Your task to perform on an android device: turn off notifications settings in the gmail app Image 0: 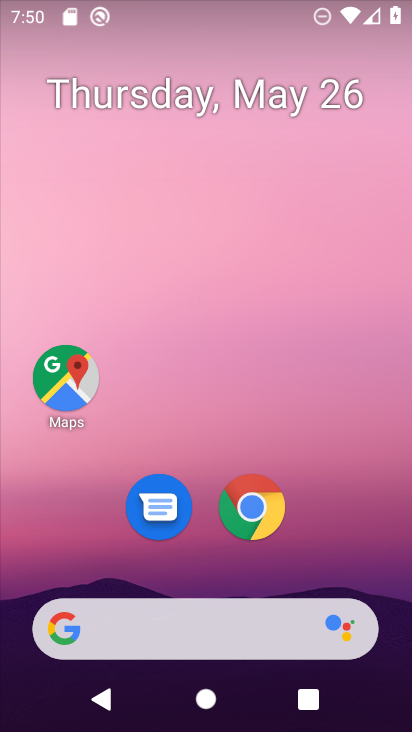
Step 0: drag from (330, 559) to (250, 236)
Your task to perform on an android device: turn off notifications settings in the gmail app Image 1: 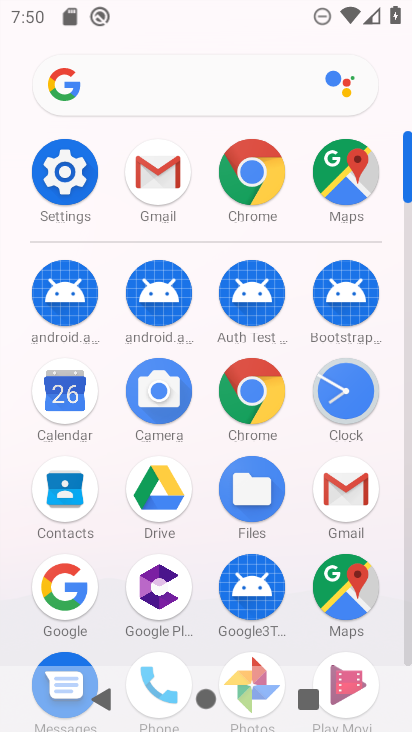
Step 1: click (125, 190)
Your task to perform on an android device: turn off notifications settings in the gmail app Image 2: 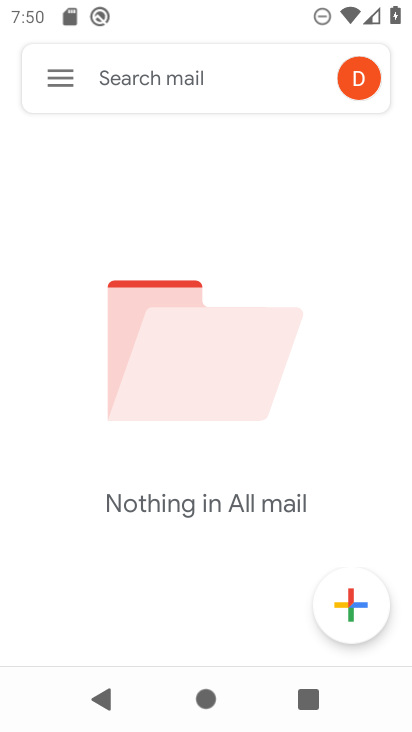
Step 2: click (80, 99)
Your task to perform on an android device: turn off notifications settings in the gmail app Image 3: 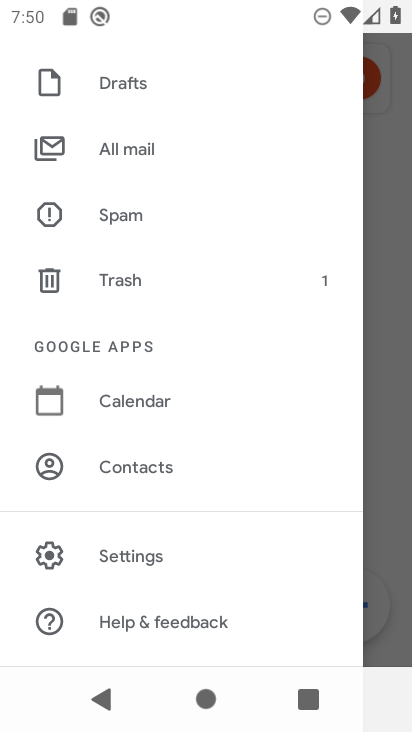
Step 3: click (142, 568)
Your task to perform on an android device: turn off notifications settings in the gmail app Image 4: 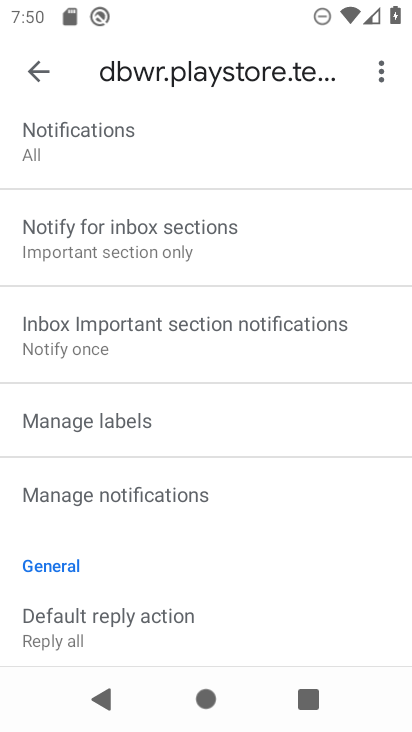
Step 4: click (99, 517)
Your task to perform on an android device: turn off notifications settings in the gmail app Image 5: 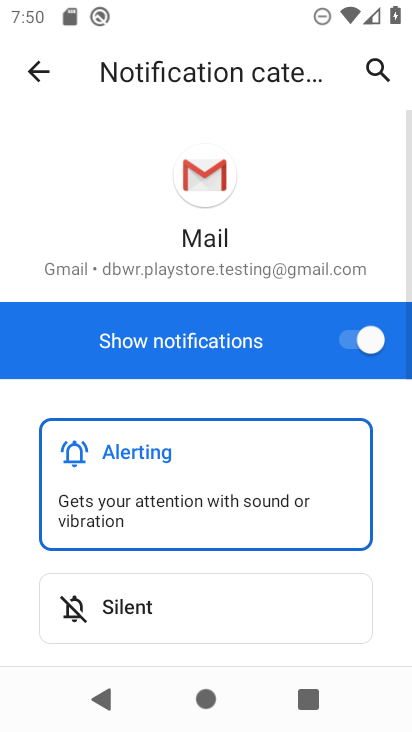
Step 5: click (362, 332)
Your task to perform on an android device: turn off notifications settings in the gmail app Image 6: 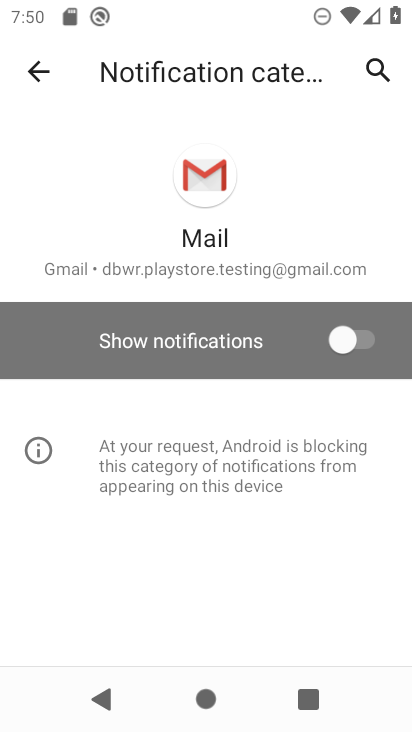
Step 6: task complete